Your task to perform on an android device: toggle airplane mode Image 0: 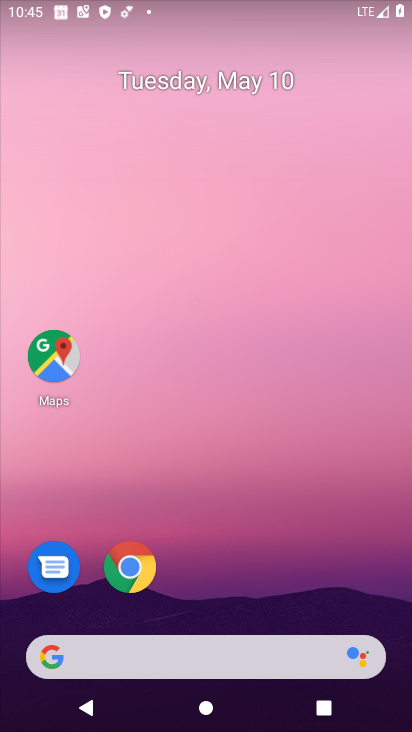
Step 0: press home button
Your task to perform on an android device: toggle airplane mode Image 1: 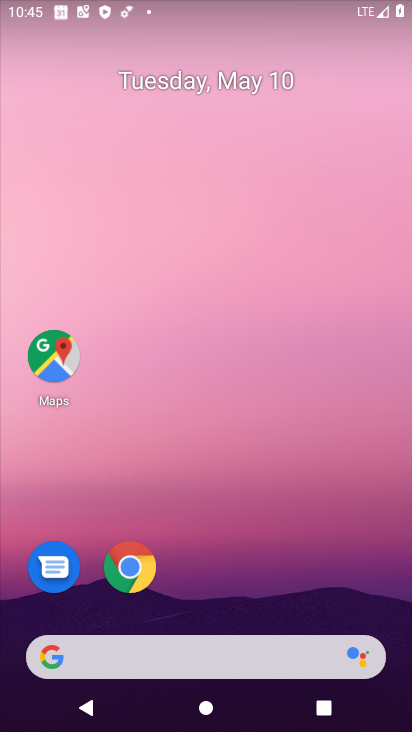
Step 1: drag from (20, 622) to (189, 203)
Your task to perform on an android device: toggle airplane mode Image 2: 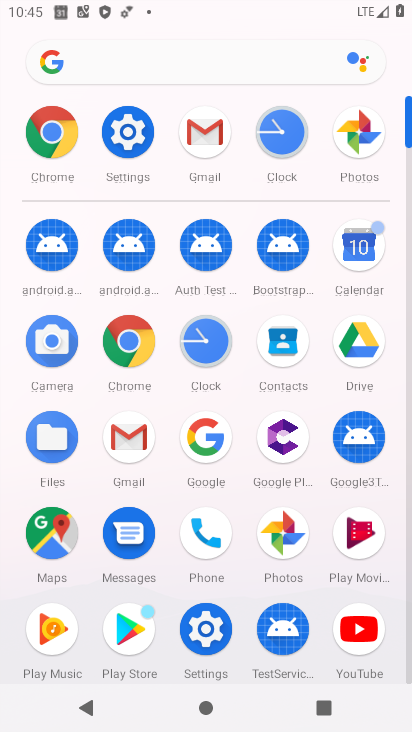
Step 2: click (120, 149)
Your task to perform on an android device: toggle airplane mode Image 3: 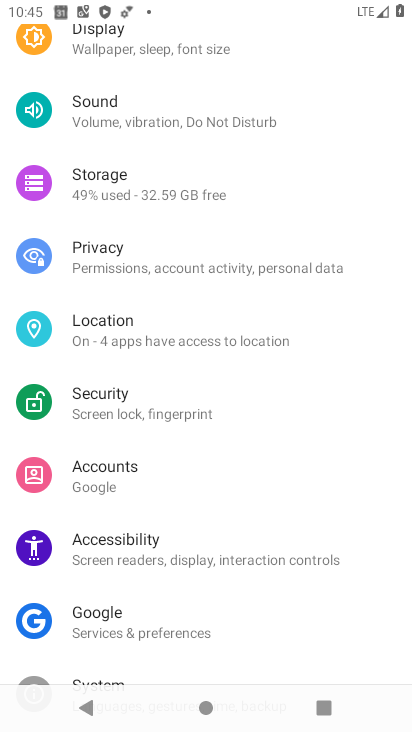
Step 3: drag from (179, 83) to (78, 687)
Your task to perform on an android device: toggle airplane mode Image 4: 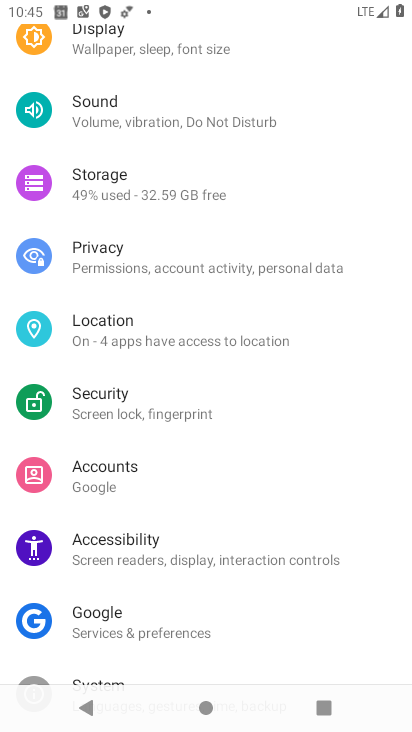
Step 4: drag from (200, 93) to (147, 637)
Your task to perform on an android device: toggle airplane mode Image 5: 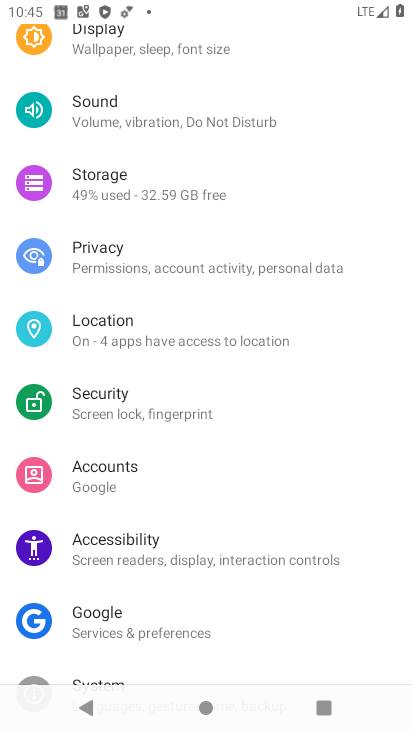
Step 5: drag from (156, 116) to (141, 615)
Your task to perform on an android device: toggle airplane mode Image 6: 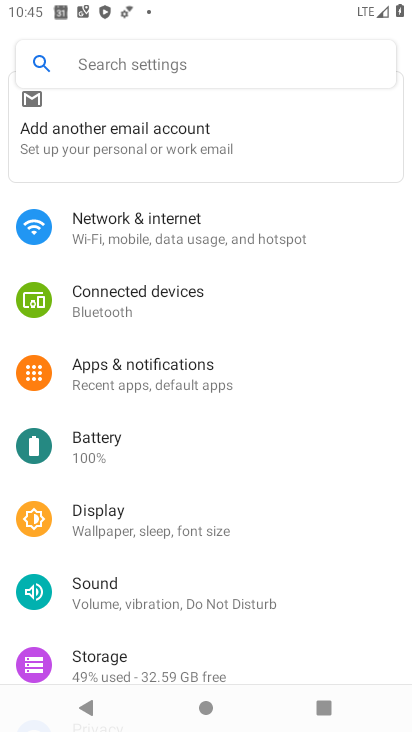
Step 6: click (165, 238)
Your task to perform on an android device: toggle airplane mode Image 7: 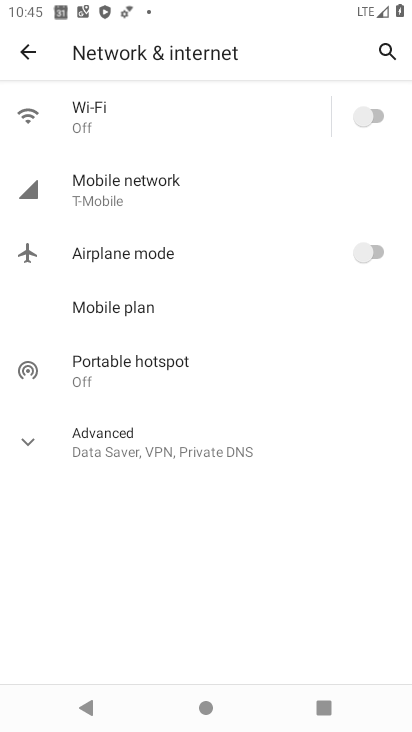
Step 7: press back button
Your task to perform on an android device: toggle airplane mode Image 8: 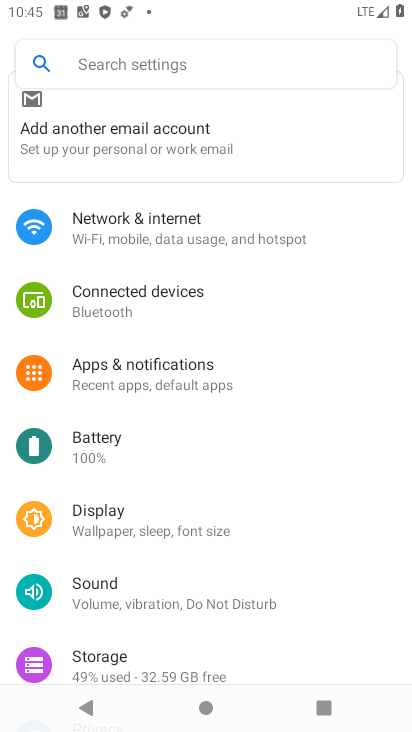
Step 8: click (209, 229)
Your task to perform on an android device: toggle airplane mode Image 9: 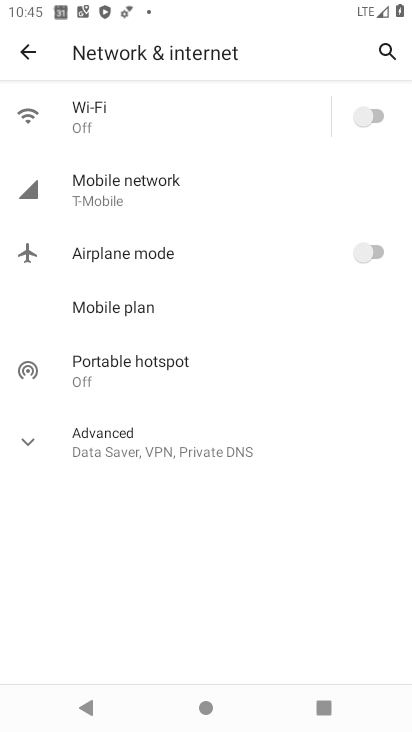
Step 9: click (355, 256)
Your task to perform on an android device: toggle airplane mode Image 10: 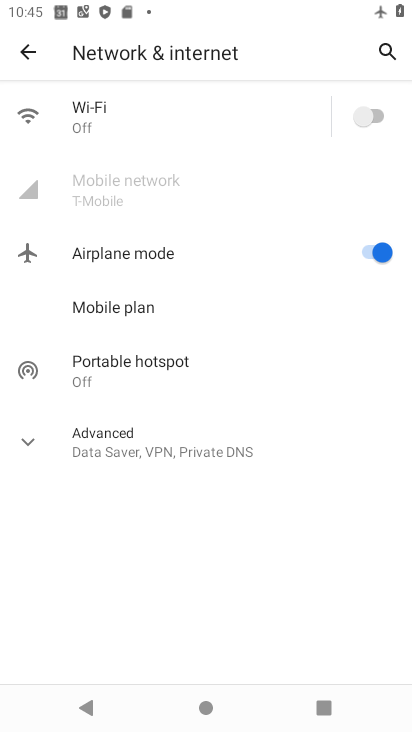
Step 10: task complete